Your task to perform on an android device: move an email to a new category in the gmail app Image 0: 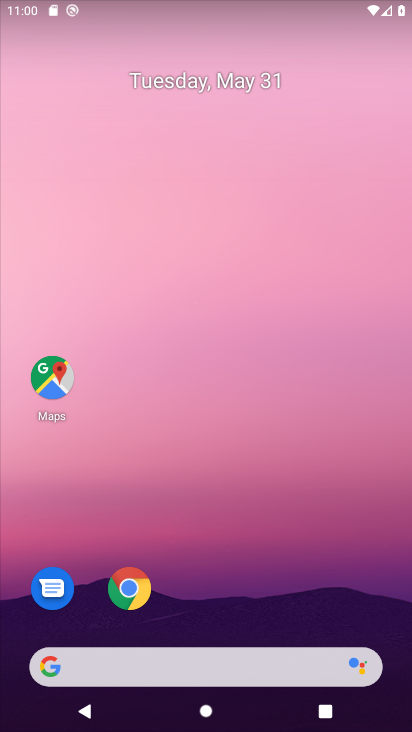
Step 0: drag from (183, 544) to (169, 253)
Your task to perform on an android device: move an email to a new category in the gmail app Image 1: 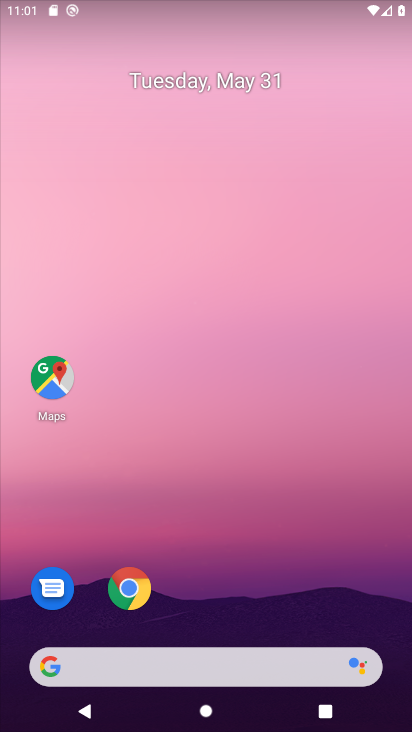
Step 1: drag from (200, 554) to (240, 38)
Your task to perform on an android device: move an email to a new category in the gmail app Image 2: 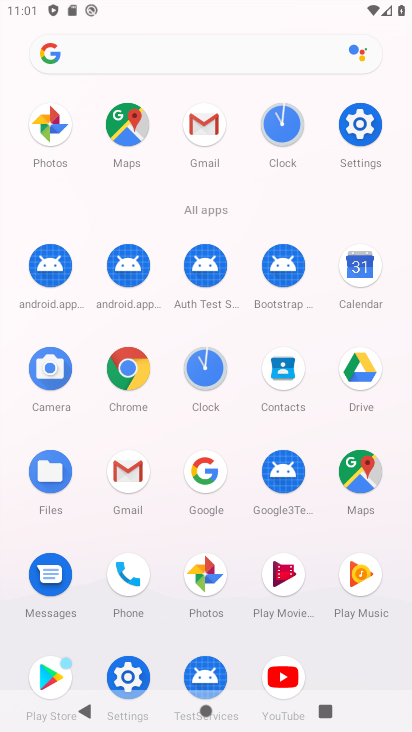
Step 2: click (130, 472)
Your task to perform on an android device: move an email to a new category in the gmail app Image 3: 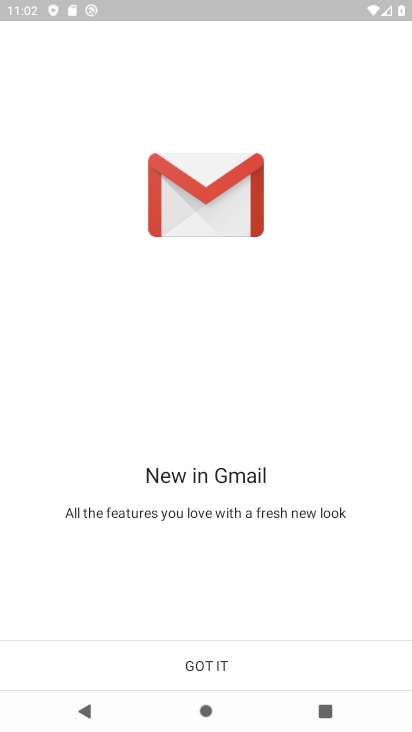
Step 3: click (199, 658)
Your task to perform on an android device: move an email to a new category in the gmail app Image 4: 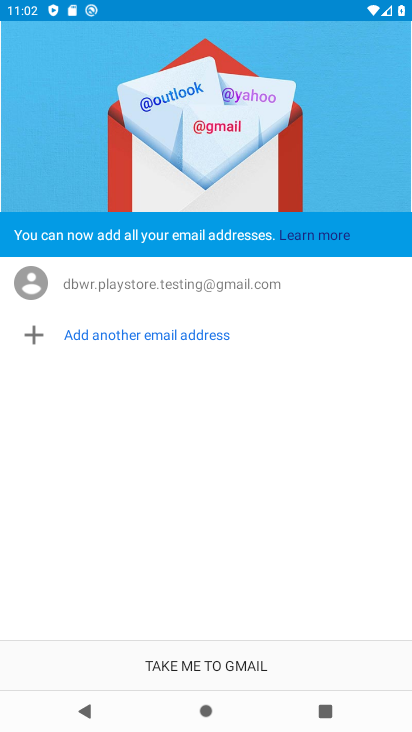
Step 4: click (200, 666)
Your task to perform on an android device: move an email to a new category in the gmail app Image 5: 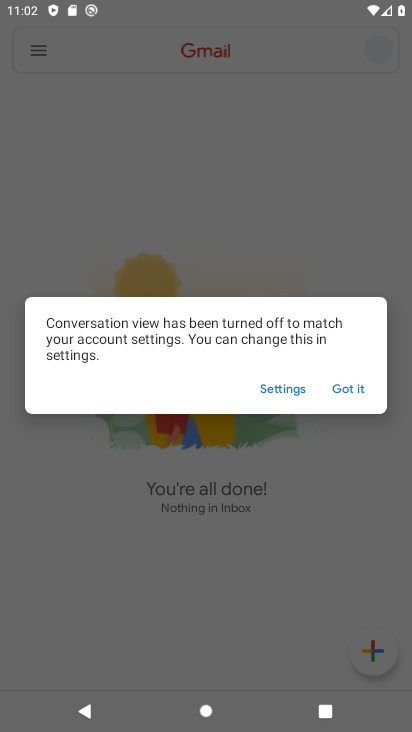
Step 5: click (366, 393)
Your task to perform on an android device: move an email to a new category in the gmail app Image 6: 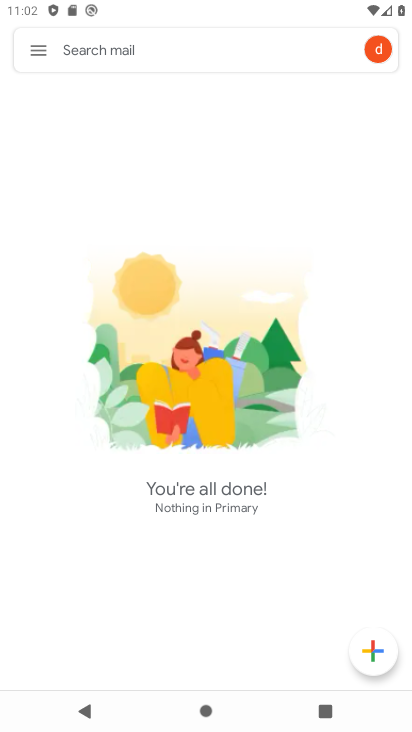
Step 6: click (42, 43)
Your task to perform on an android device: move an email to a new category in the gmail app Image 7: 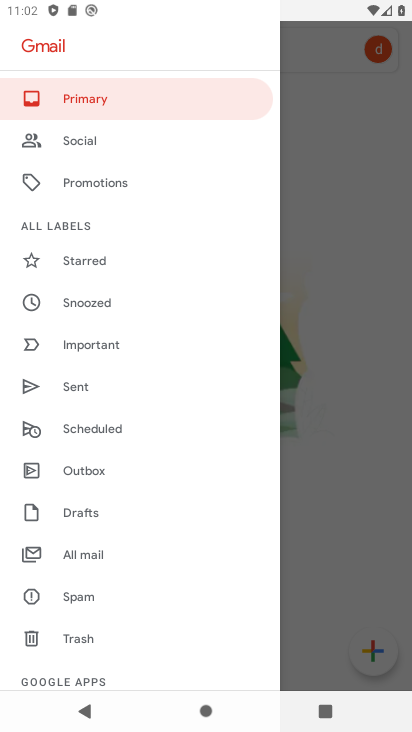
Step 7: click (95, 560)
Your task to perform on an android device: move an email to a new category in the gmail app Image 8: 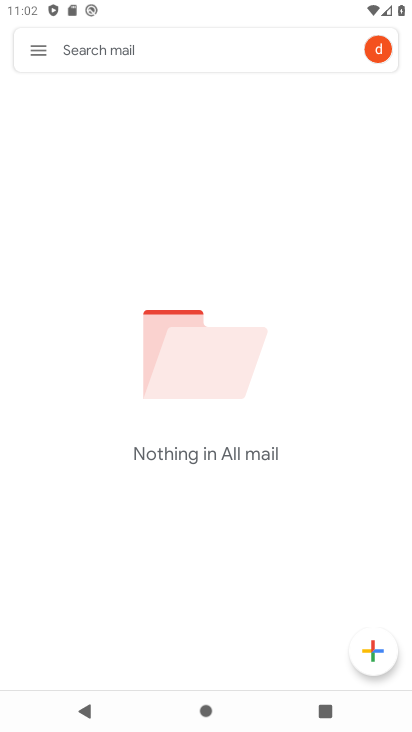
Step 8: task complete